Your task to perform on an android device: find snoozed emails in the gmail app Image 0: 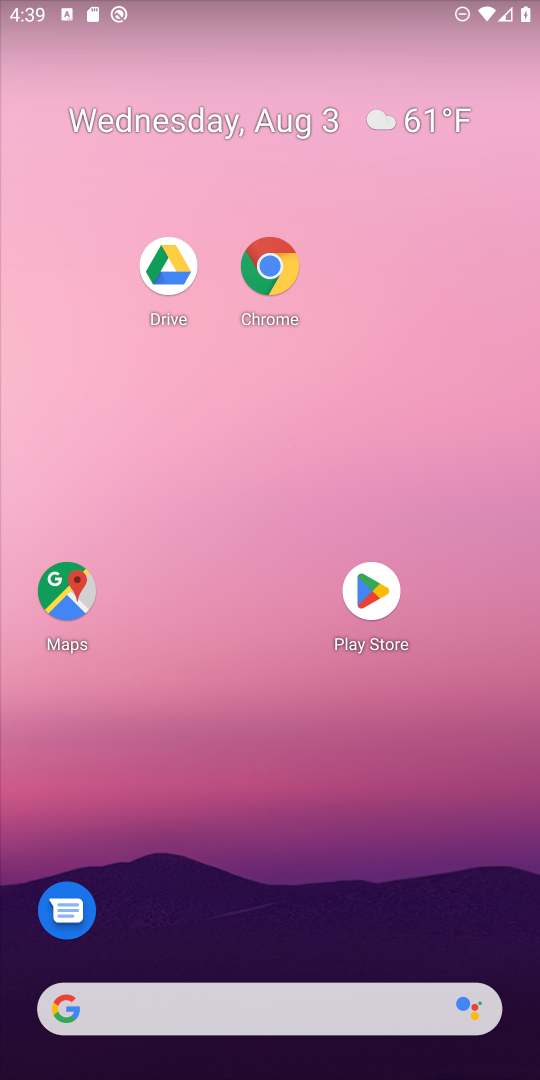
Step 0: drag from (259, 994) to (199, 0)
Your task to perform on an android device: find snoozed emails in the gmail app Image 1: 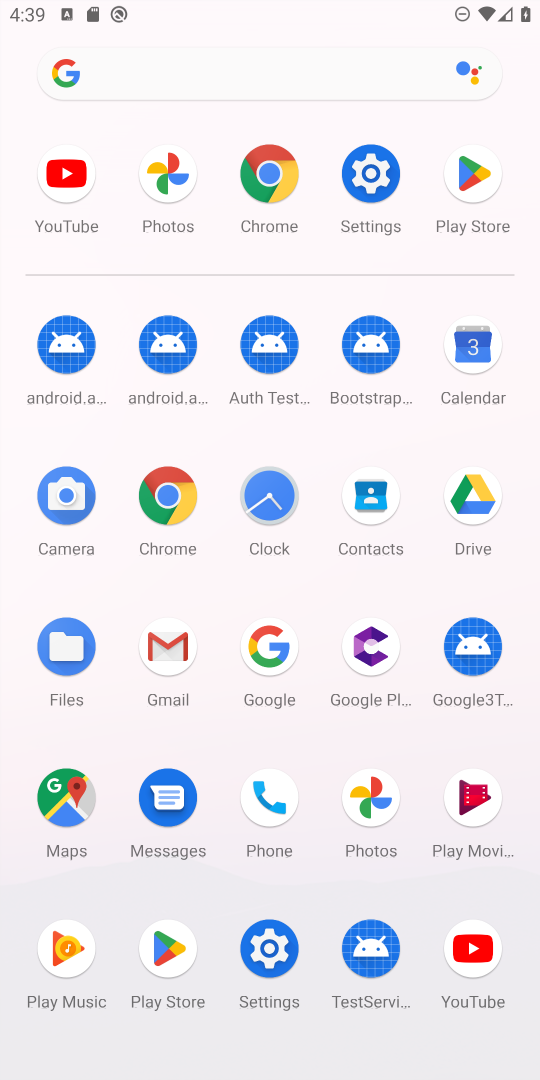
Step 1: click (152, 646)
Your task to perform on an android device: find snoozed emails in the gmail app Image 2: 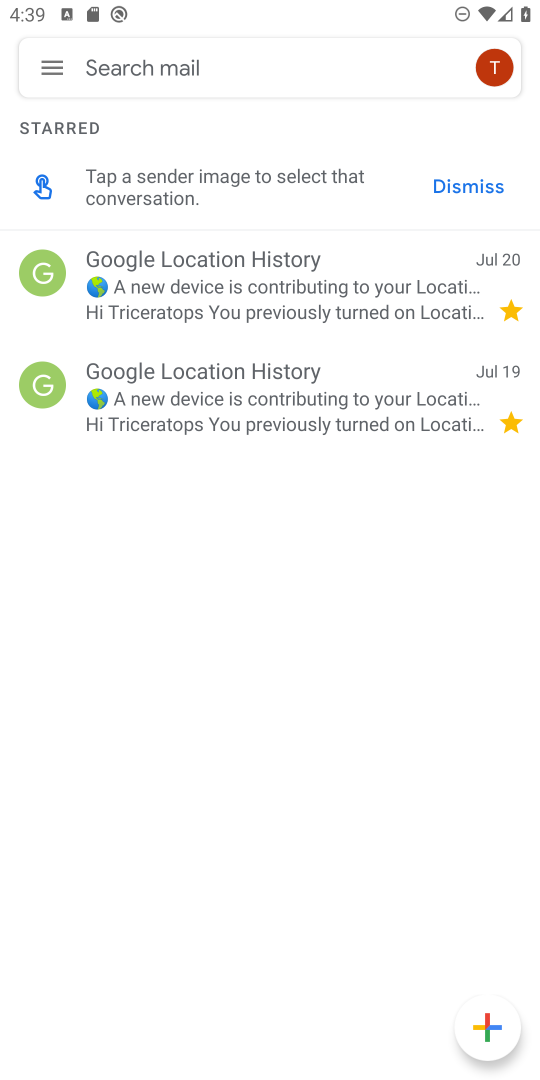
Step 2: click (46, 71)
Your task to perform on an android device: find snoozed emails in the gmail app Image 3: 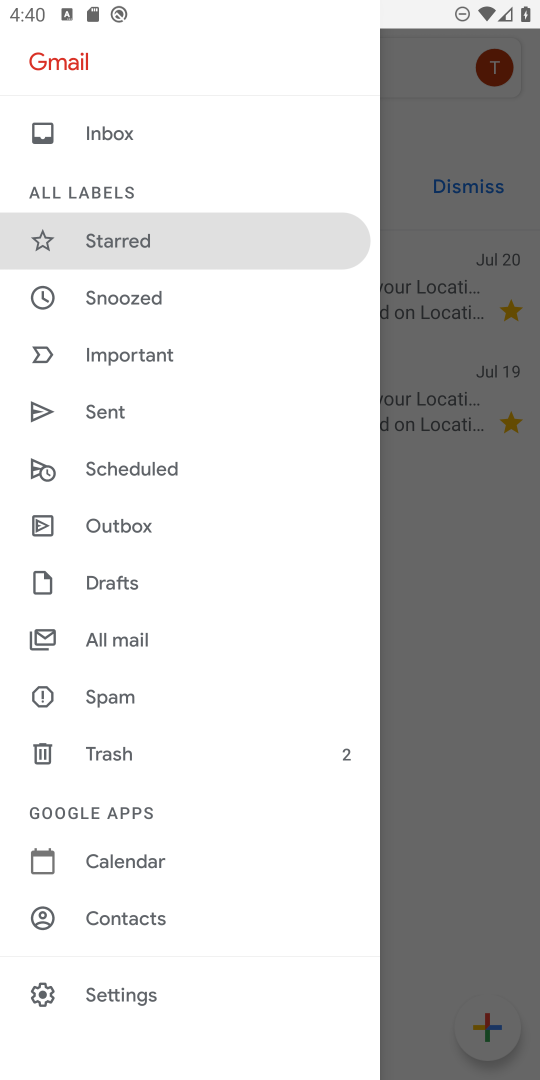
Step 3: click (139, 301)
Your task to perform on an android device: find snoozed emails in the gmail app Image 4: 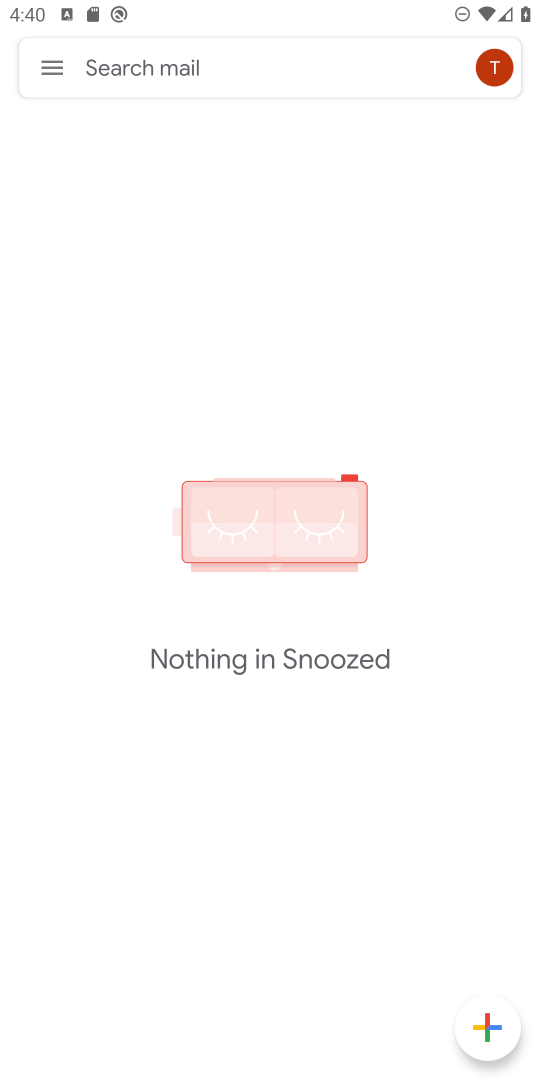
Step 4: task complete